Your task to perform on an android device: Do I have any events tomorrow? Image 0: 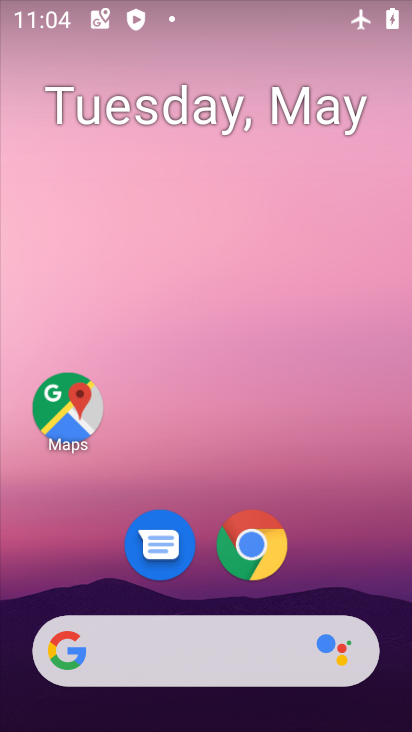
Step 0: drag from (272, 620) to (370, 219)
Your task to perform on an android device: Do I have any events tomorrow? Image 1: 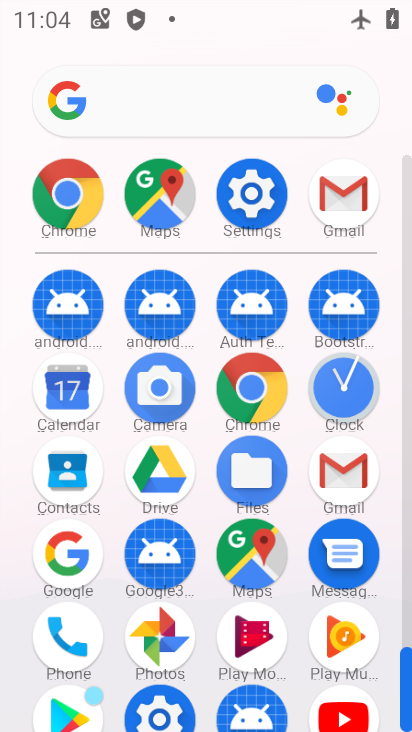
Step 1: click (61, 405)
Your task to perform on an android device: Do I have any events tomorrow? Image 2: 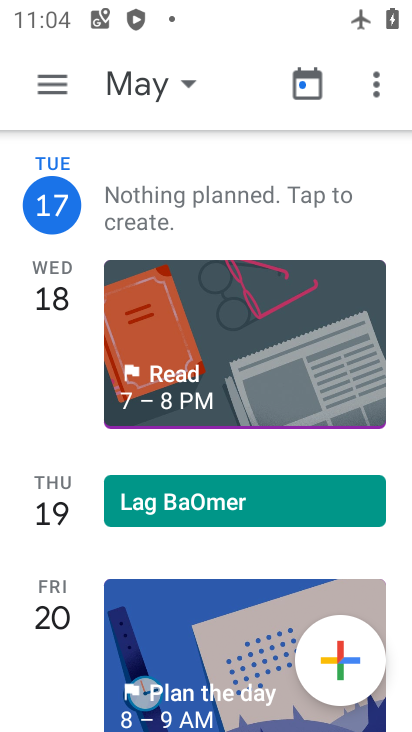
Step 2: task complete